Your task to perform on an android device: open app "Google Calendar" (install if not already installed) Image 0: 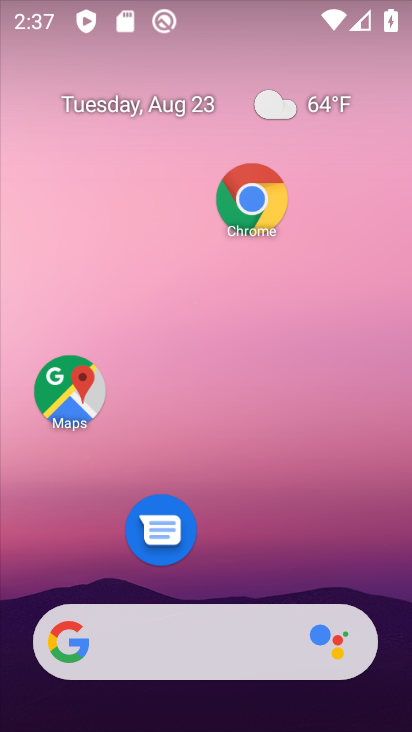
Step 0: drag from (283, 578) to (284, 1)
Your task to perform on an android device: open app "Google Calendar" (install if not already installed) Image 1: 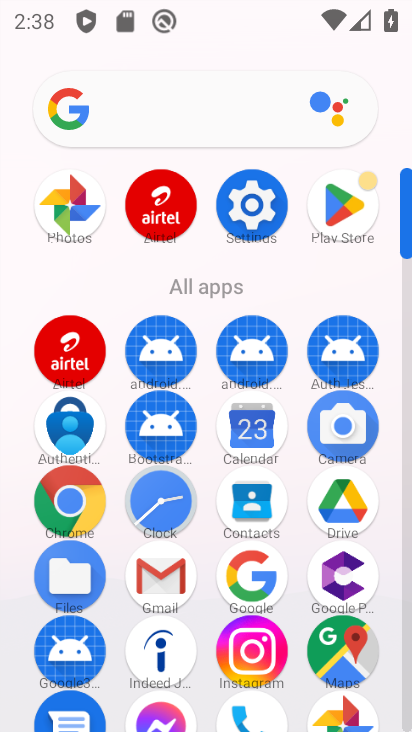
Step 1: click (355, 209)
Your task to perform on an android device: open app "Google Calendar" (install if not already installed) Image 2: 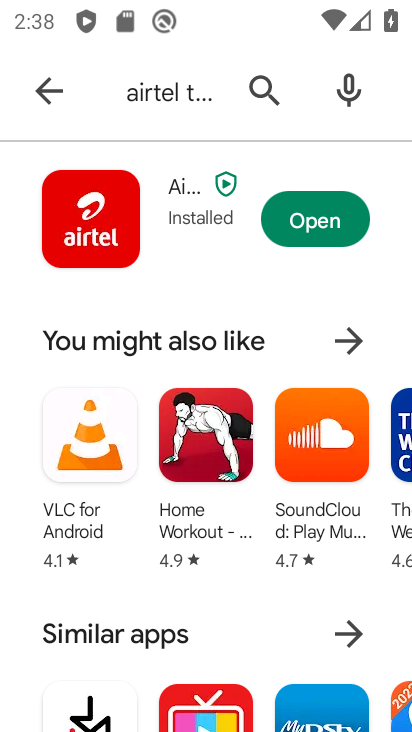
Step 2: click (176, 85)
Your task to perform on an android device: open app "Google Calendar" (install if not already installed) Image 3: 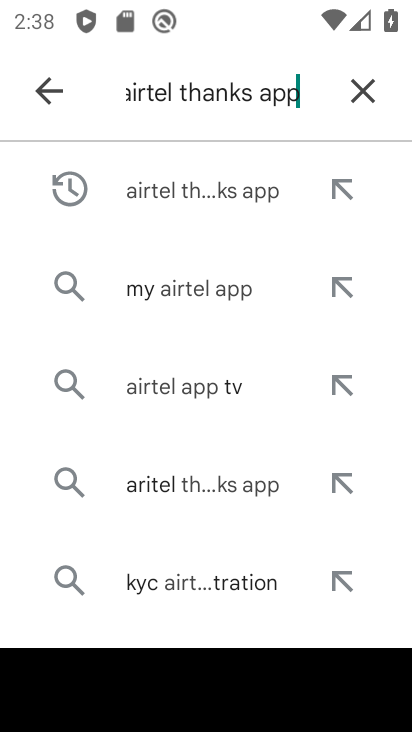
Step 3: click (369, 90)
Your task to perform on an android device: open app "Google Calendar" (install if not already installed) Image 4: 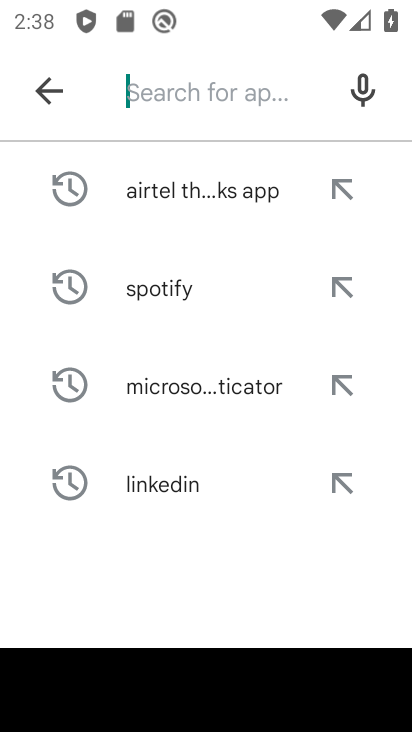
Step 4: type "google calender"
Your task to perform on an android device: open app "Google Calendar" (install if not already installed) Image 5: 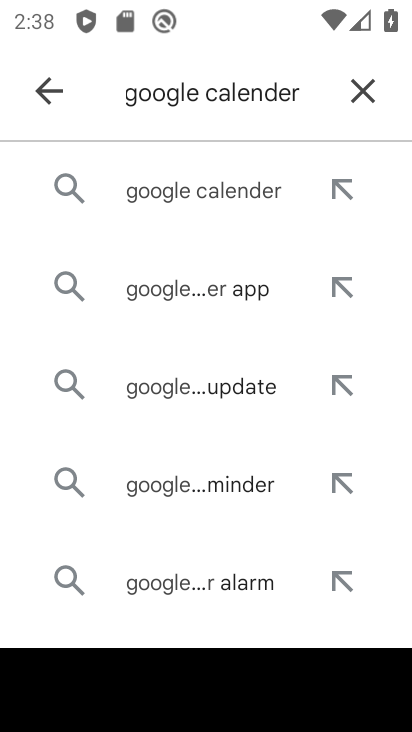
Step 5: click (219, 201)
Your task to perform on an android device: open app "Google Calendar" (install if not already installed) Image 6: 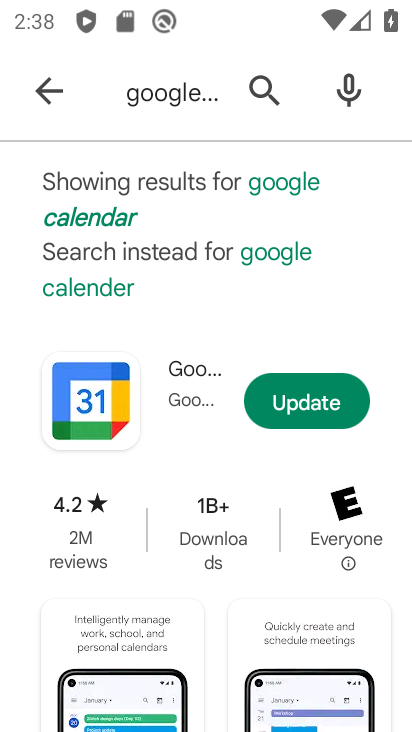
Step 6: click (330, 394)
Your task to perform on an android device: open app "Google Calendar" (install if not already installed) Image 7: 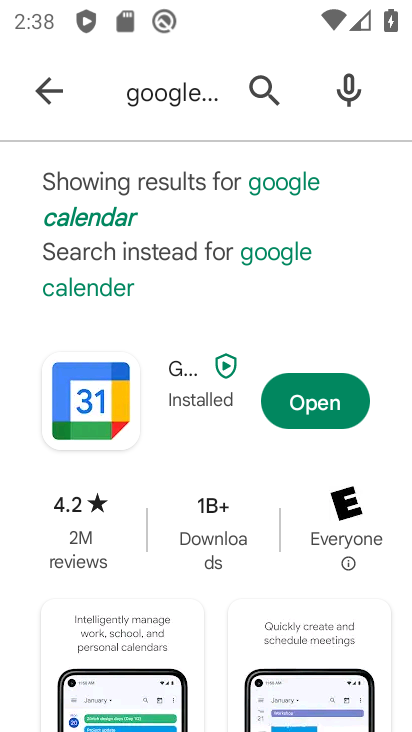
Step 7: click (314, 390)
Your task to perform on an android device: open app "Google Calendar" (install if not already installed) Image 8: 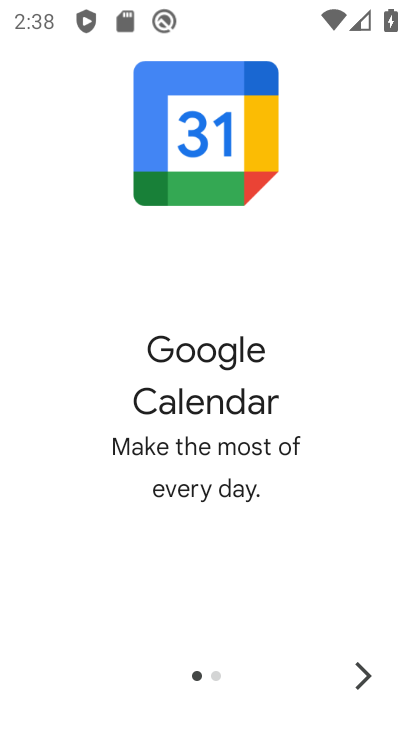
Step 8: click (352, 676)
Your task to perform on an android device: open app "Google Calendar" (install if not already installed) Image 9: 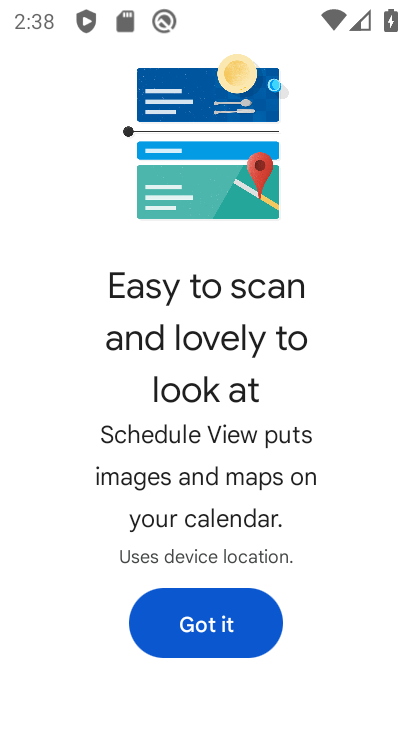
Step 9: click (215, 623)
Your task to perform on an android device: open app "Google Calendar" (install if not already installed) Image 10: 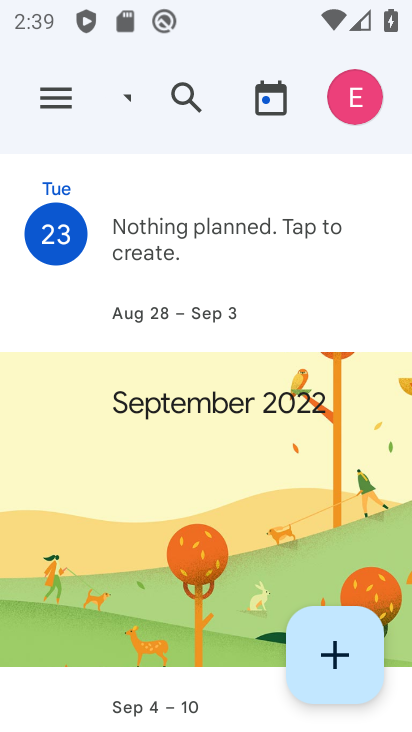
Step 10: task complete